Your task to perform on an android device: toggle sleep mode Image 0: 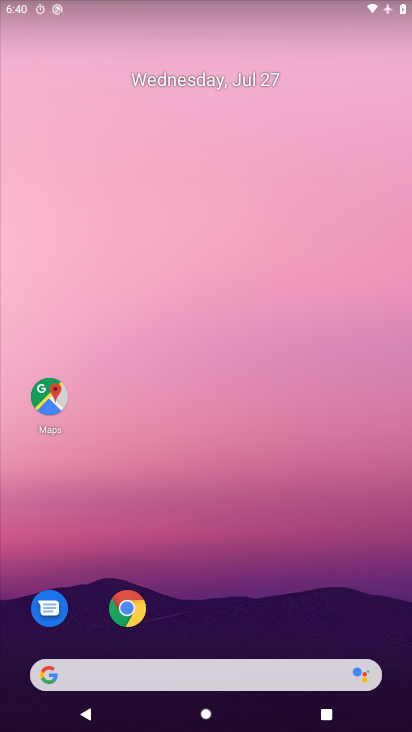
Step 0: press home button
Your task to perform on an android device: toggle sleep mode Image 1: 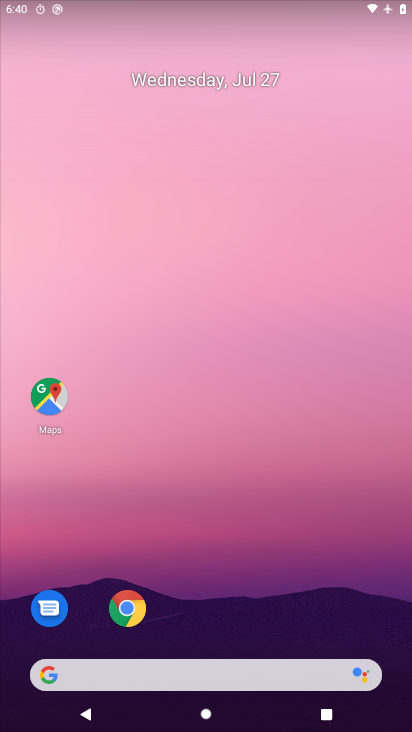
Step 1: drag from (227, 622) to (189, 359)
Your task to perform on an android device: toggle sleep mode Image 2: 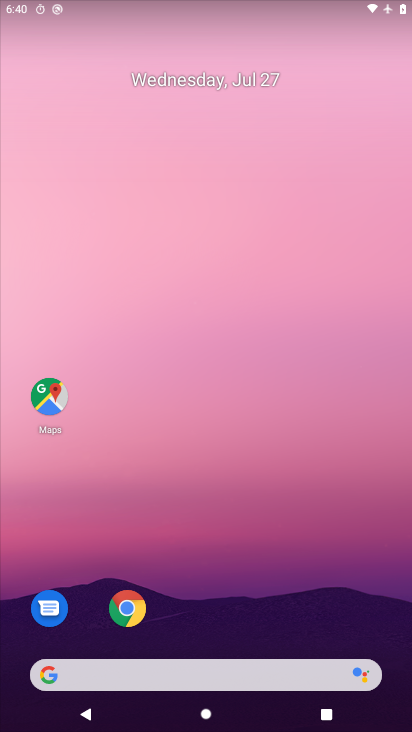
Step 2: drag from (255, 630) to (252, 26)
Your task to perform on an android device: toggle sleep mode Image 3: 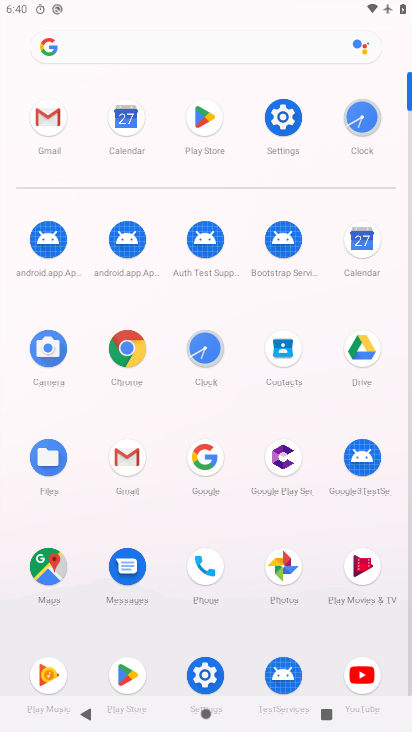
Step 3: click (286, 112)
Your task to perform on an android device: toggle sleep mode Image 4: 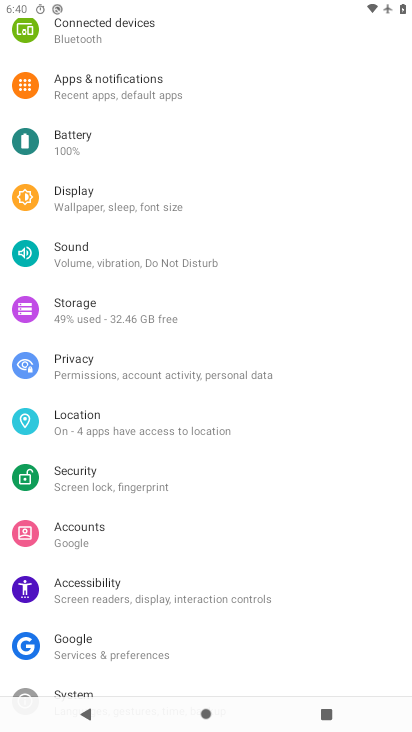
Step 4: click (96, 196)
Your task to perform on an android device: toggle sleep mode Image 5: 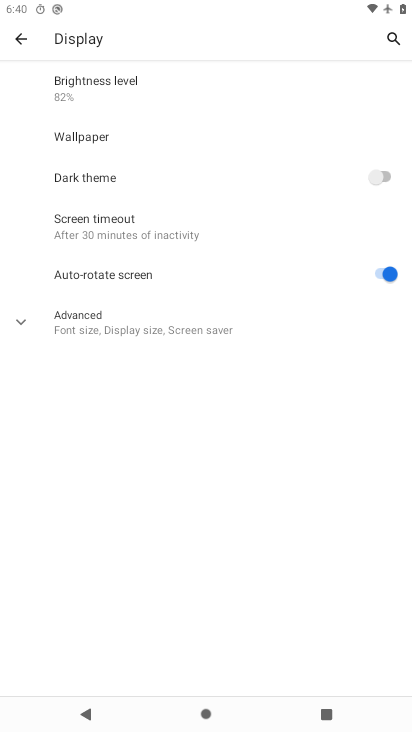
Step 5: task complete